Your task to perform on an android device: Open battery settings Image 0: 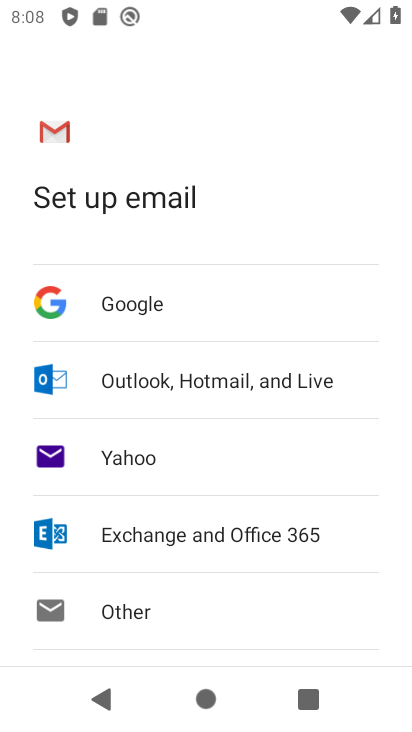
Step 0: press home button
Your task to perform on an android device: Open battery settings Image 1: 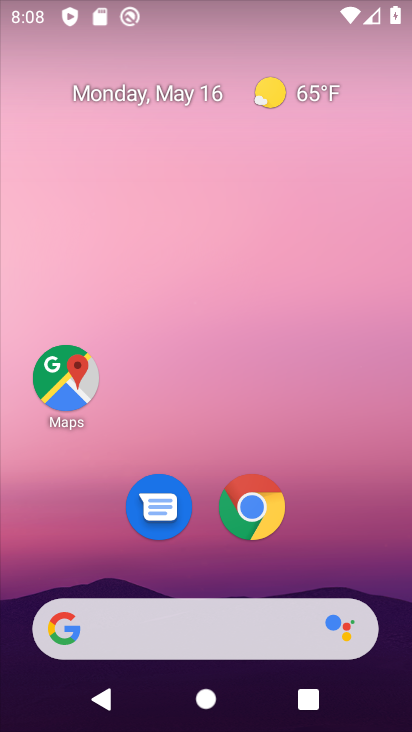
Step 1: drag from (211, 570) to (144, 13)
Your task to perform on an android device: Open battery settings Image 2: 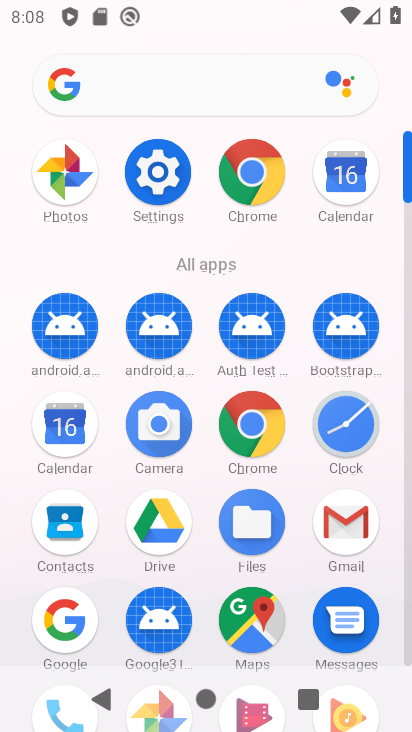
Step 2: click (154, 182)
Your task to perform on an android device: Open battery settings Image 3: 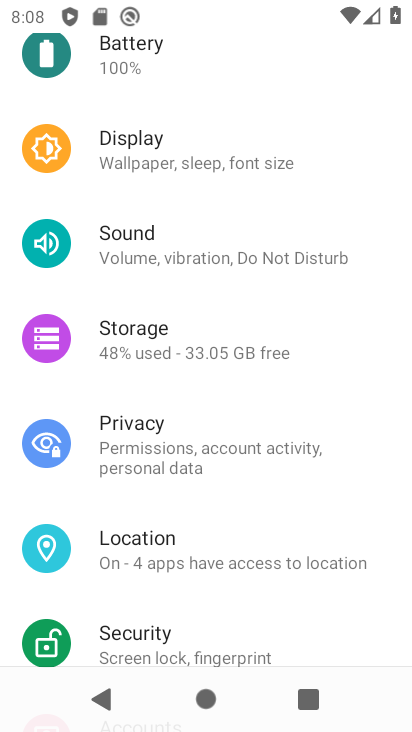
Step 3: click (143, 73)
Your task to perform on an android device: Open battery settings Image 4: 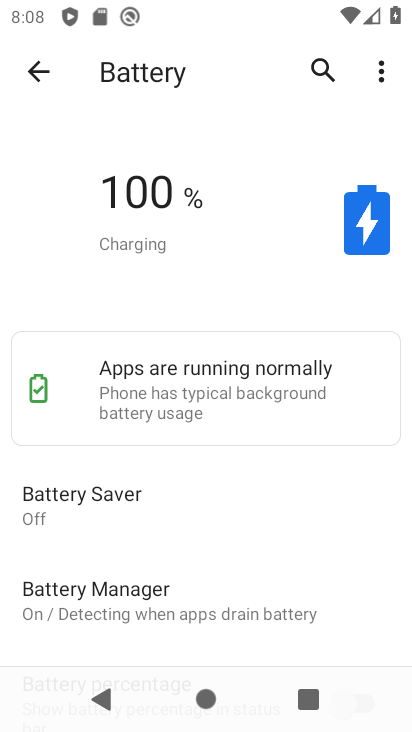
Step 4: task complete